Your task to perform on an android device: Open Yahoo.com Image 0: 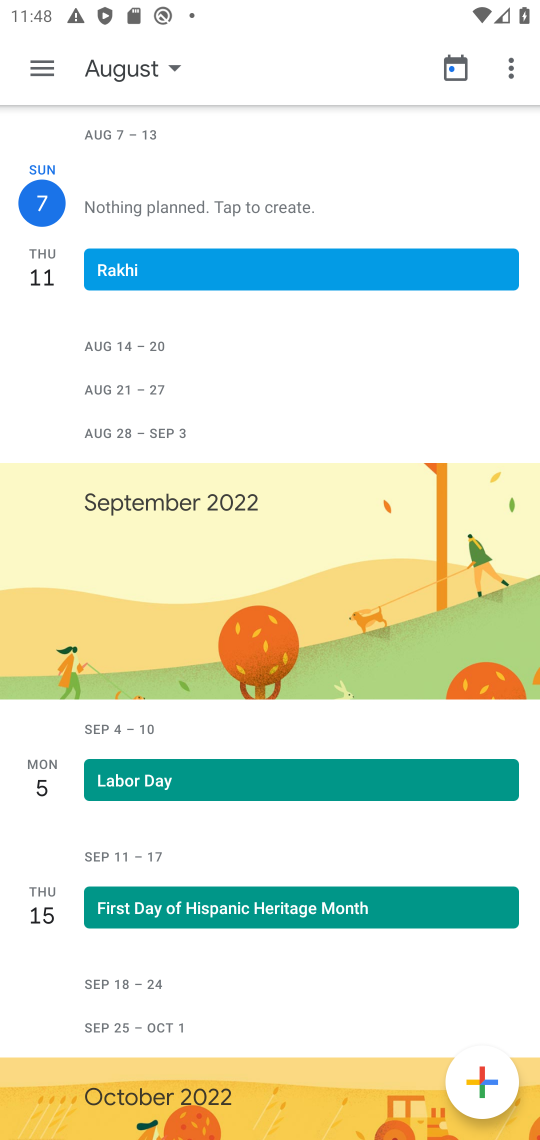
Step 0: press home button
Your task to perform on an android device: Open Yahoo.com Image 1: 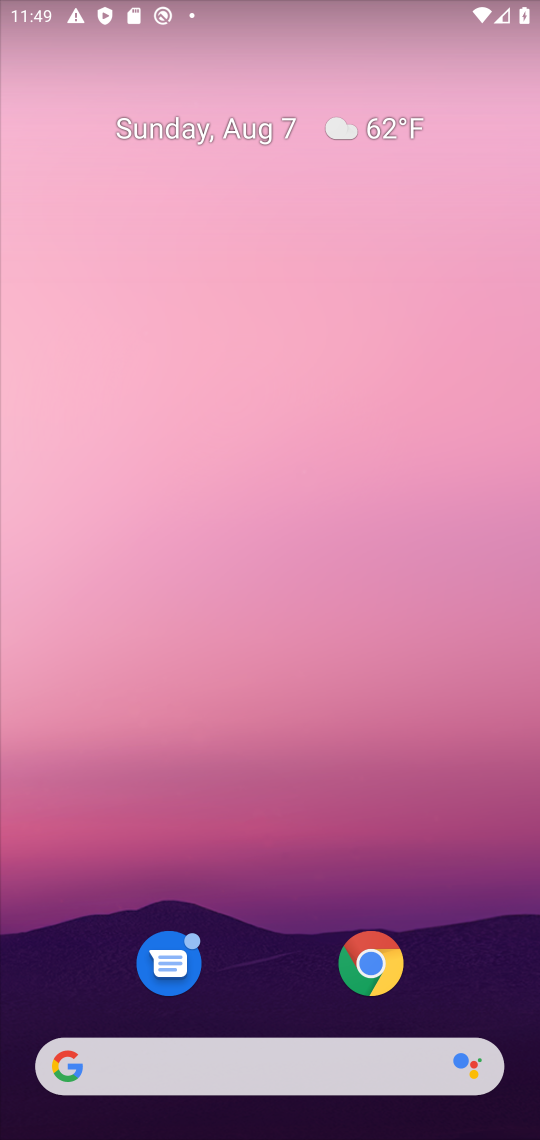
Step 1: drag from (487, 967) to (194, 135)
Your task to perform on an android device: Open Yahoo.com Image 2: 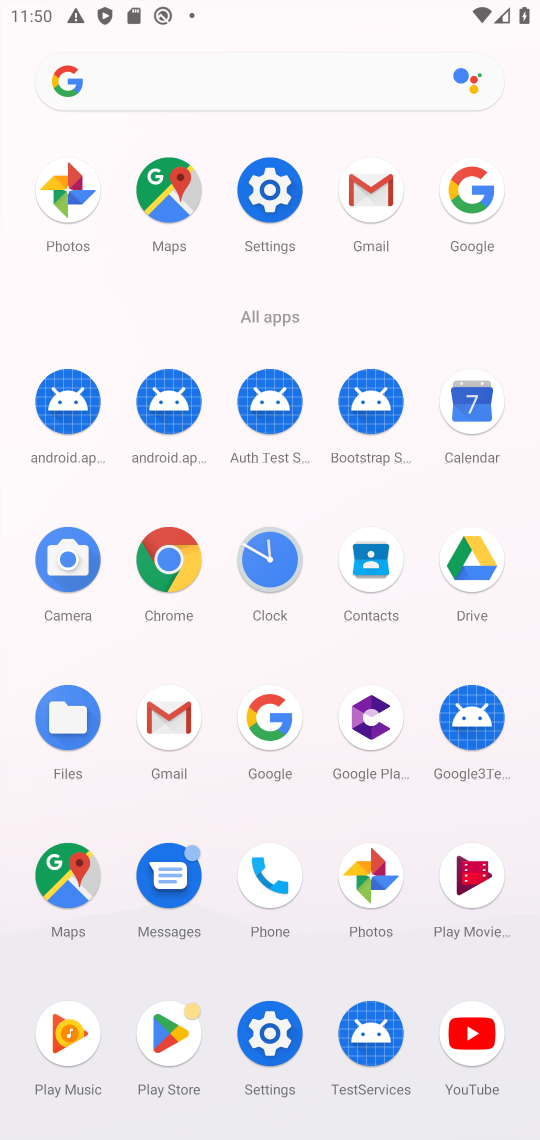
Step 2: click (263, 718)
Your task to perform on an android device: Open Yahoo.com Image 3: 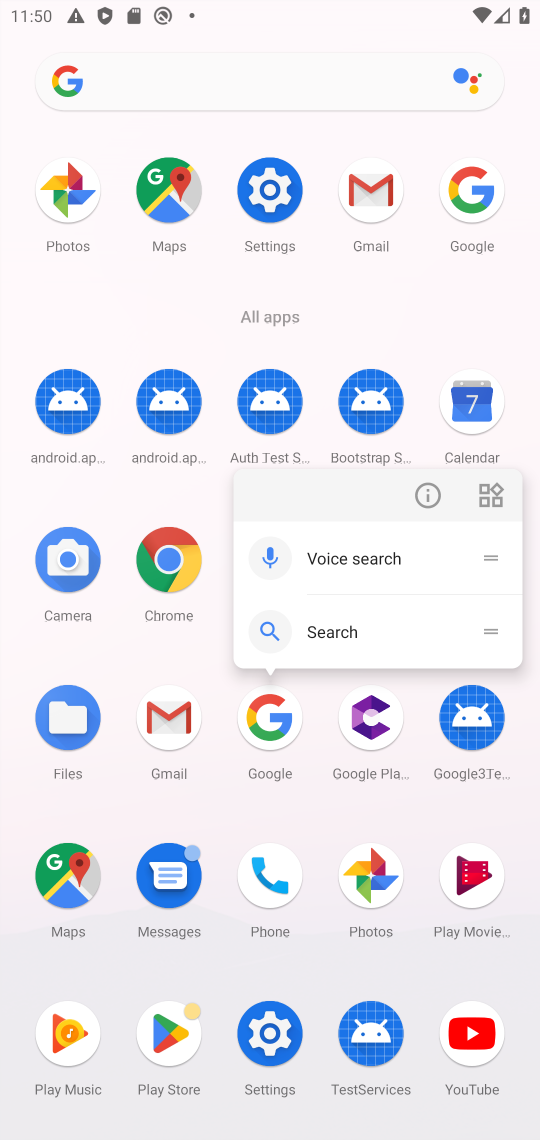
Step 3: click (263, 718)
Your task to perform on an android device: Open Yahoo.com Image 4: 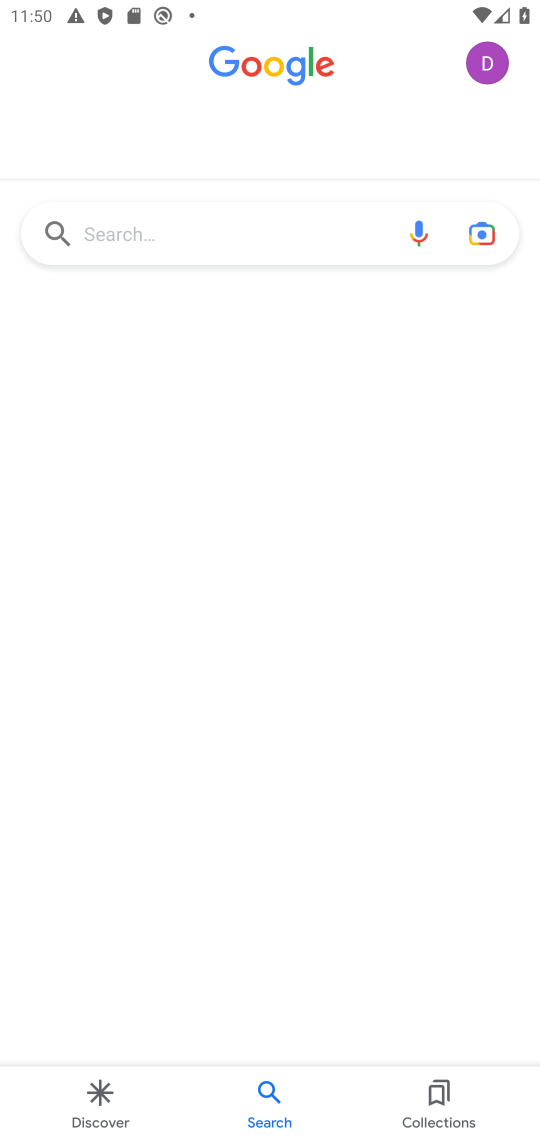
Step 4: click (213, 229)
Your task to perform on an android device: Open Yahoo.com Image 5: 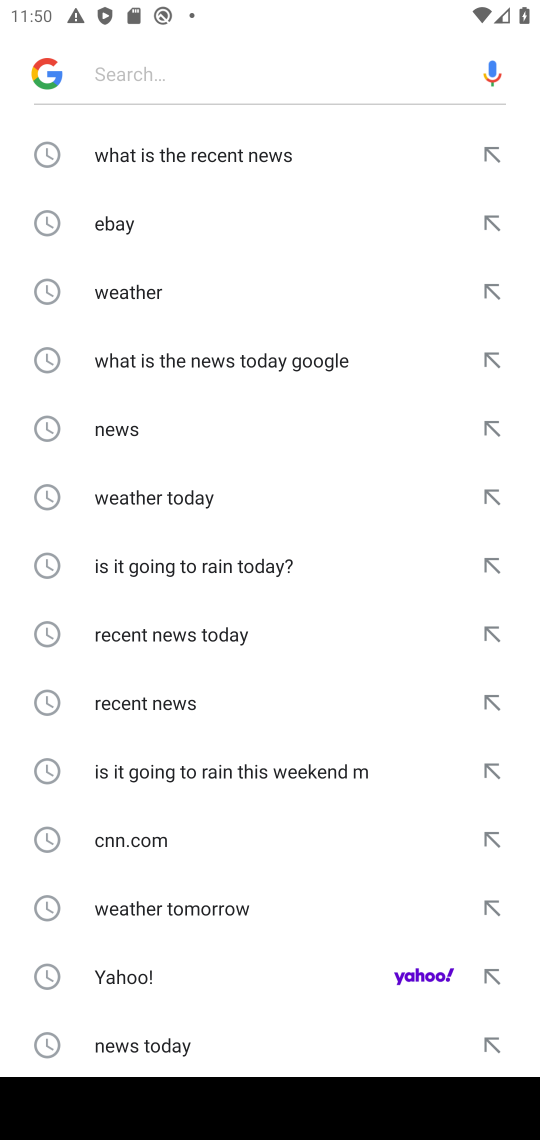
Step 5: type "Yahoo.com"
Your task to perform on an android device: Open Yahoo.com Image 6: 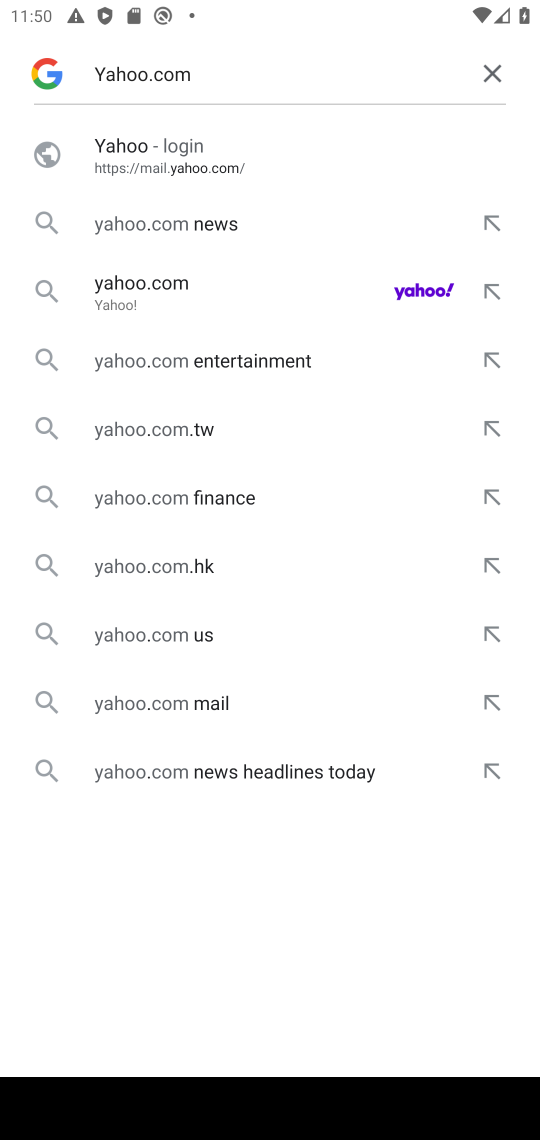
Step 6: click (180, 295)
Your task to perform on an android device: Open Yahoo.com Image 7: 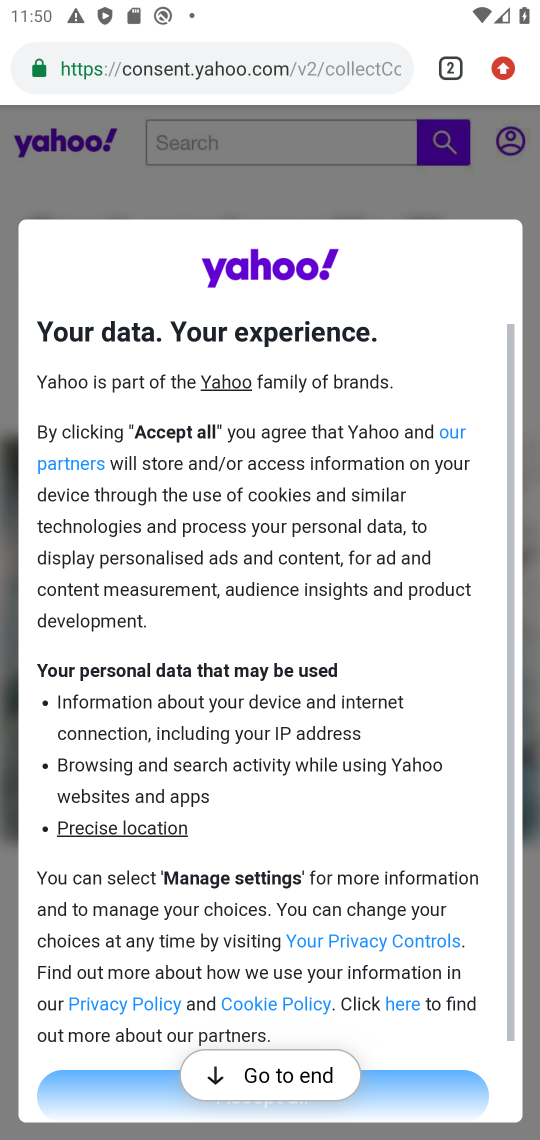
Step 7: task complete